Your task to perform on an android device: Open wifi settings Image 0: 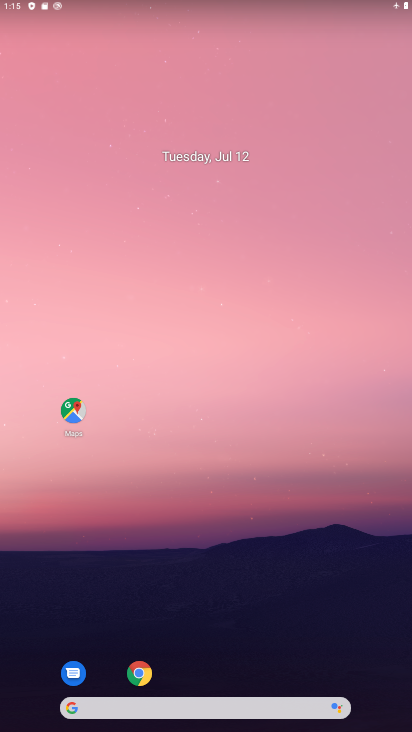
Step 0: click (397, 568)
Your task to perform on an android device: Open wifi settings Image 1: 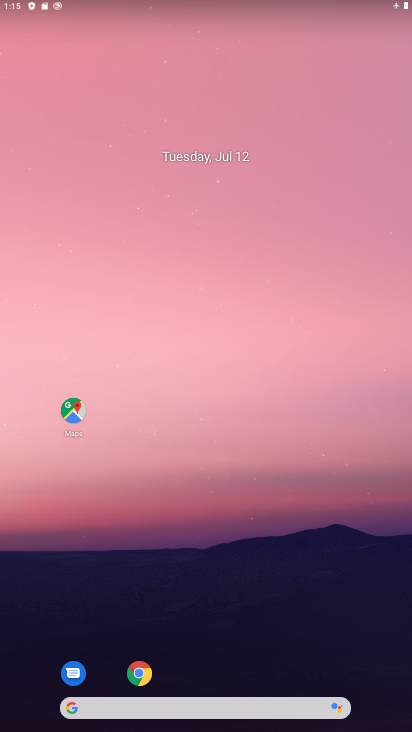
Step 1: drag from (228, 599) to (246, 283)
Your task to perform on an android device: Open wifi settings Image 2: 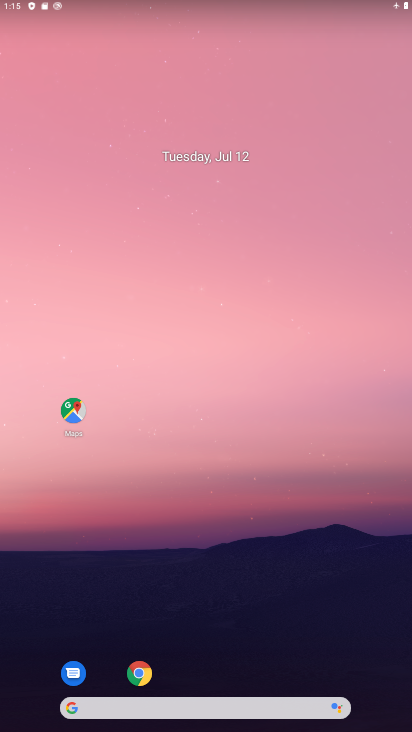
Step 2: drag from (299, 590) to (335, 335)
Your task to perform on an android device: Open wifi settings Image 3: 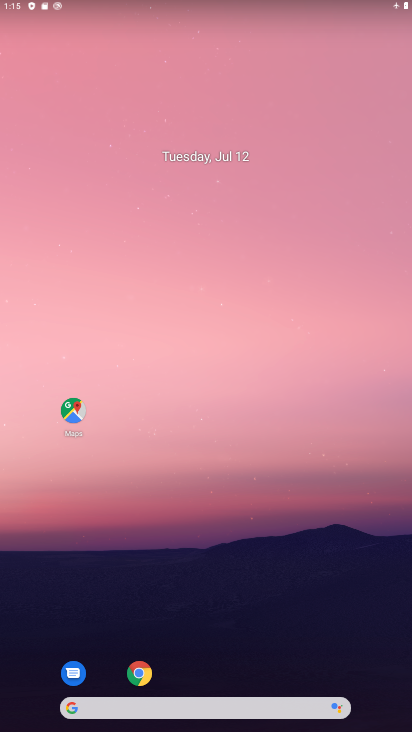
Step 3: drag from (250, 621) to (252, 215)
Your task to perform on an android device: Open wifi settings Image 4: 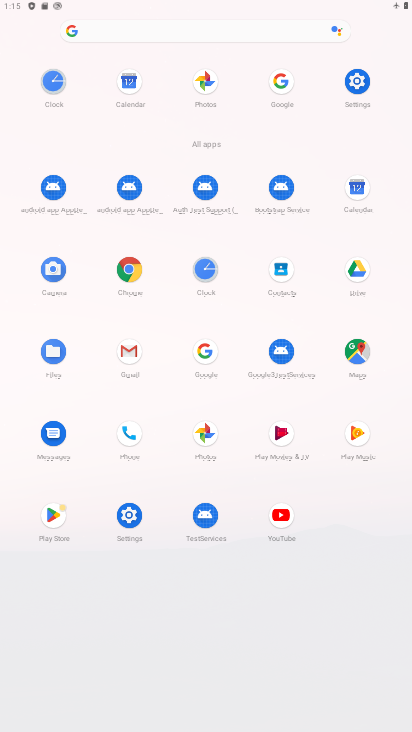
Step 4: click (365, 66)
Your task to perform on an android device: Open wifi settings Image 5: 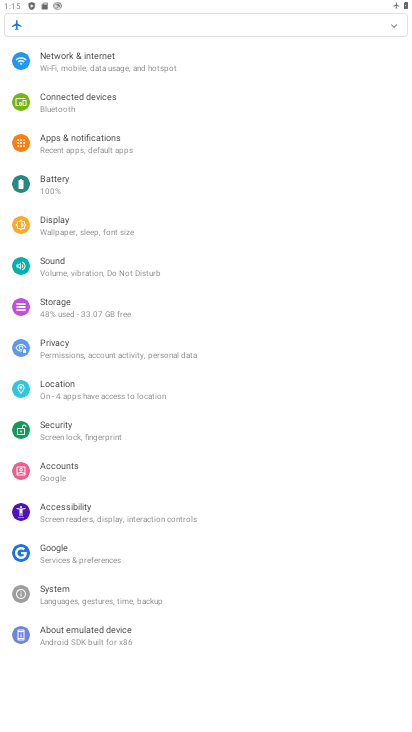
Step 5: click (68, 60)
Your task to perform on an android device: Open wifi settings Image 6: 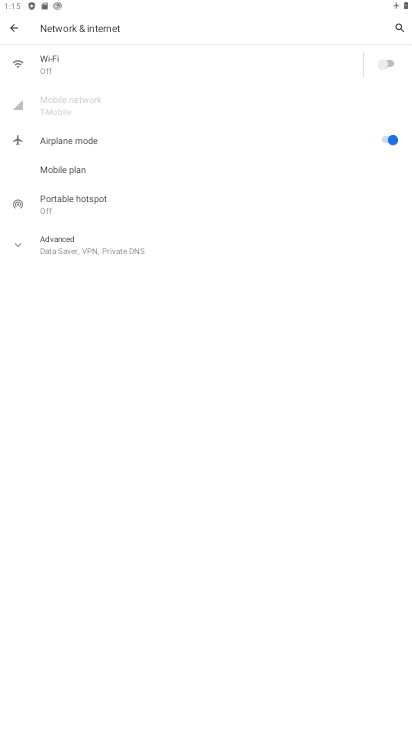
Step 6: click (78, 66)
Your task to perform on an android device: Open wifi settings Image 7: 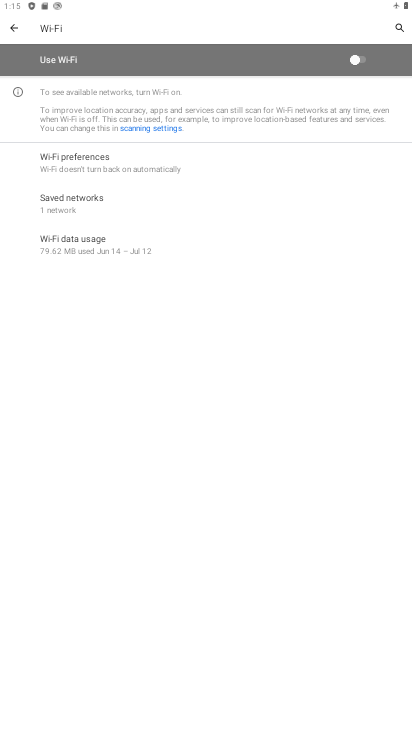
Step 7: task complete